Your task to perform on an android device: Open Youtube and go to "Your channel" Image 0: 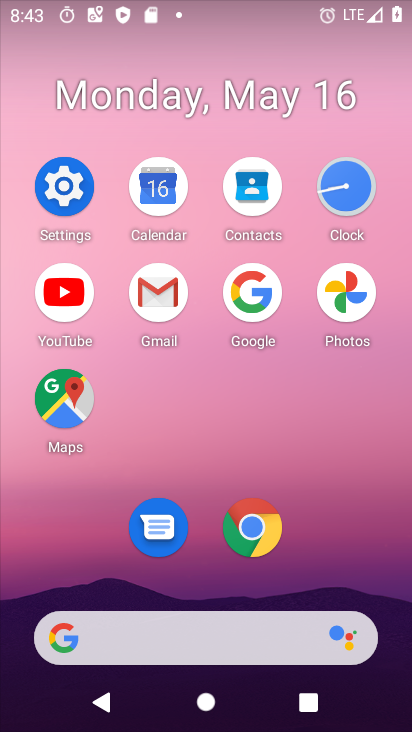
Step 0: click (54, 277)
Your task to perform on an android device: Open Youtube and go to "Your channel" Image 1: 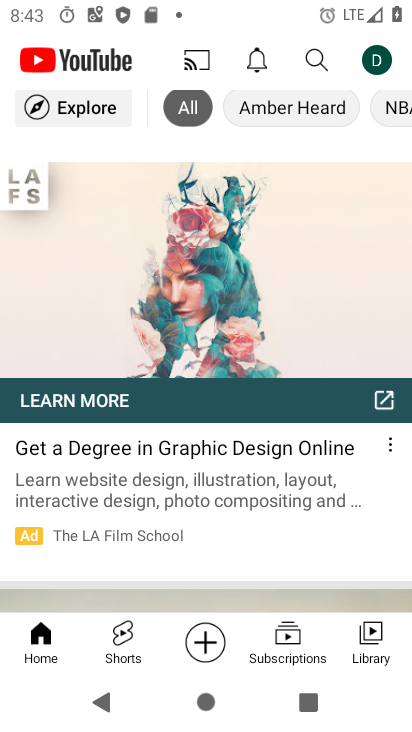
Step 1: click (377, 74)
Your task to perform on an android device: Open Youtube and go to "Your channel" Image 2: 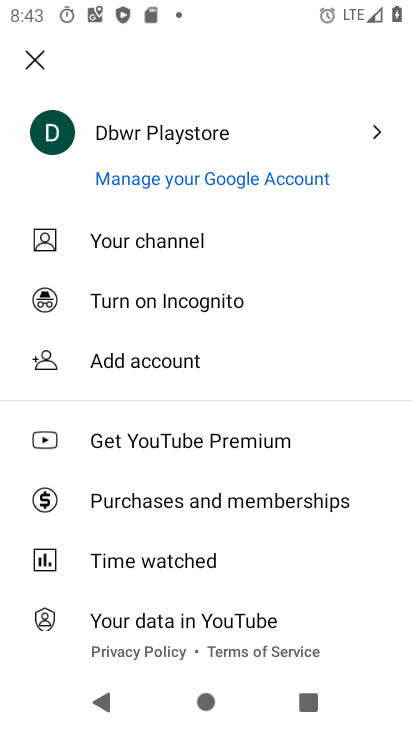
Step 2: click (244, 240)
Your task to perform on an android device: Open Youtube and go to "Your channel" Image 3: 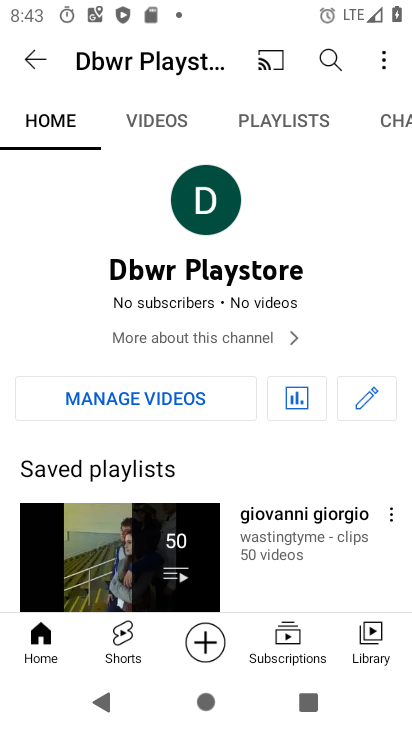
Step 3: task complete